Your task to perform on an android device: Show me the alarms in the clock app Image 0: 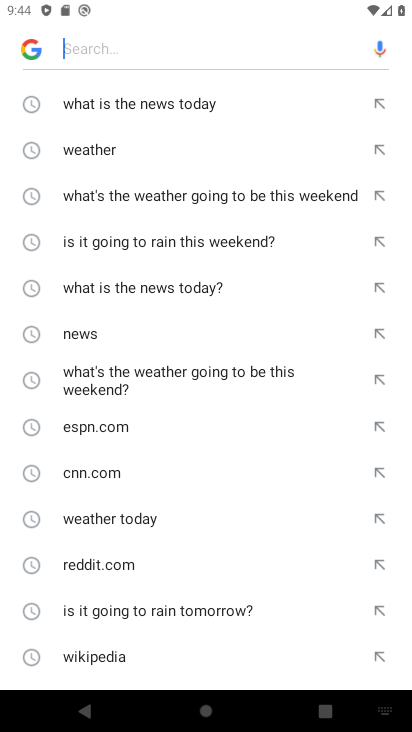
Step 0: press home button
Your task to perform on an android device: Show me the alarms in the clock app Image 1: 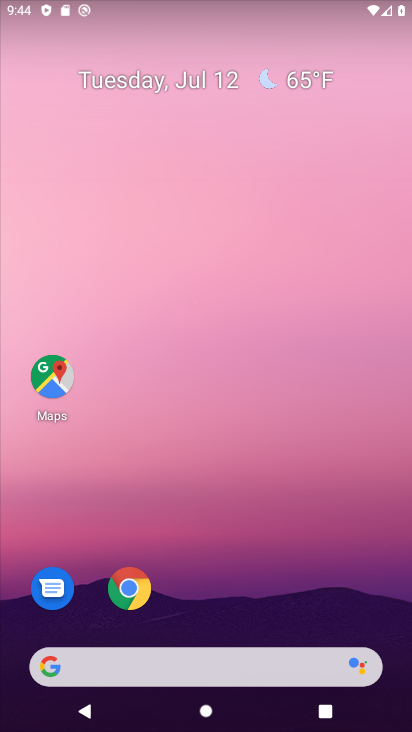
Step 1: drag from (282, 254) to (311, 184)
Your task to perform on an android device: Show me the alarms in the clock app Image 2: 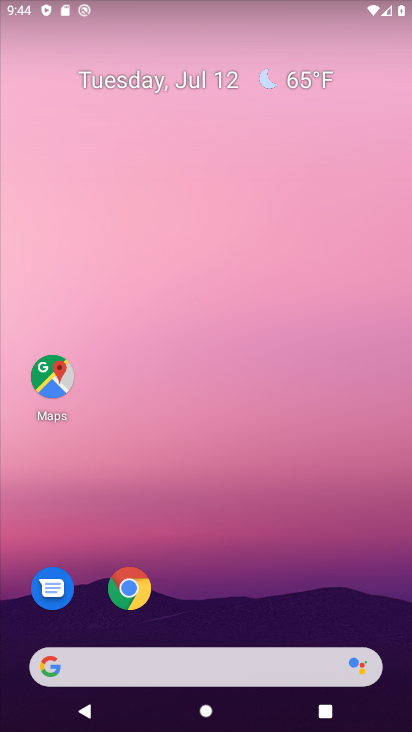
Step 2: drag from (48, 703) to (263, 7)
Your task to perform on an android device: Show me the alarms in the clock app Image 3: 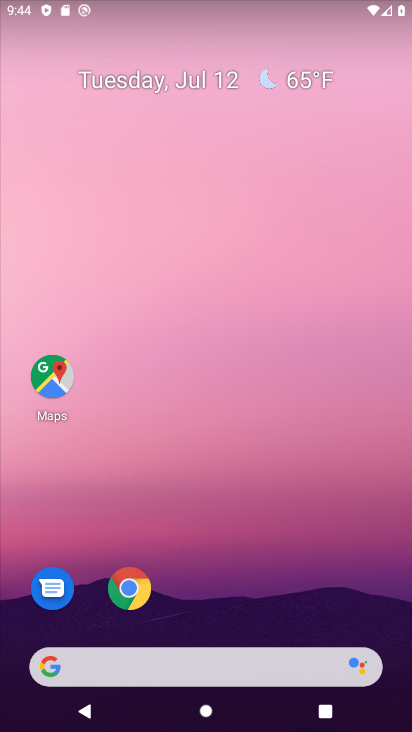
Step 3: drag from (23, 712) to (259, 2)
Your task to perform on an android device: Show me the alarms in the clock app Image 4: 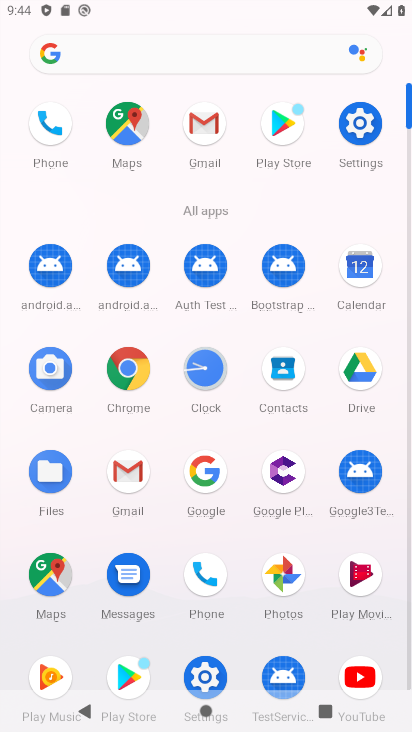
Step 4: click (203, 379)
Your task to perform on an android device: Show me the alarms in the clock app Image 5: 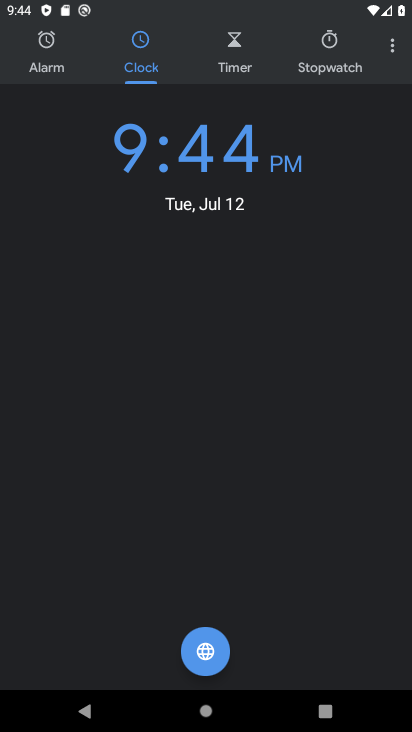
Step 5: click (42, 66)
Your task to perform on an android device: Show me the alarms in the clock app Image 6: 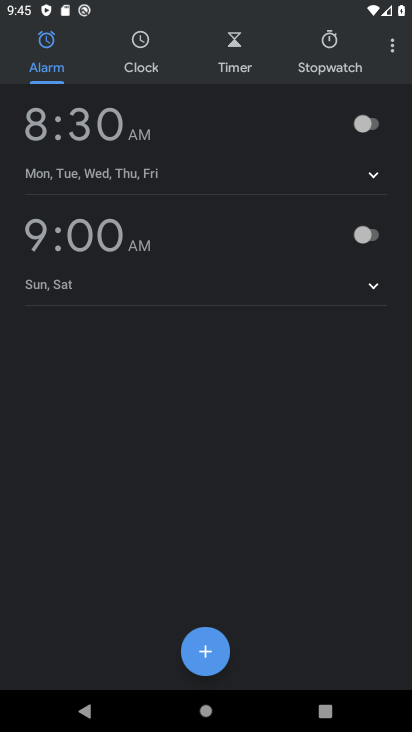
Step 6: task complete